Your task to perform on an android device: Search for pizza restaurants on Maps Image 0: 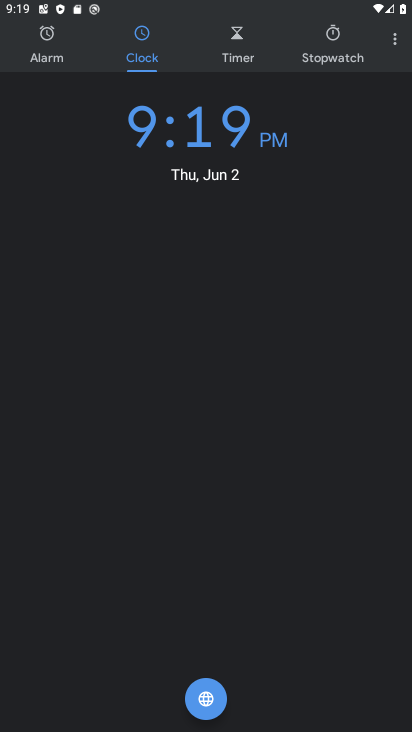
Step 0: press home button
Your task to perform on an android device: Search for pizza restaurants on Maps Image 1: 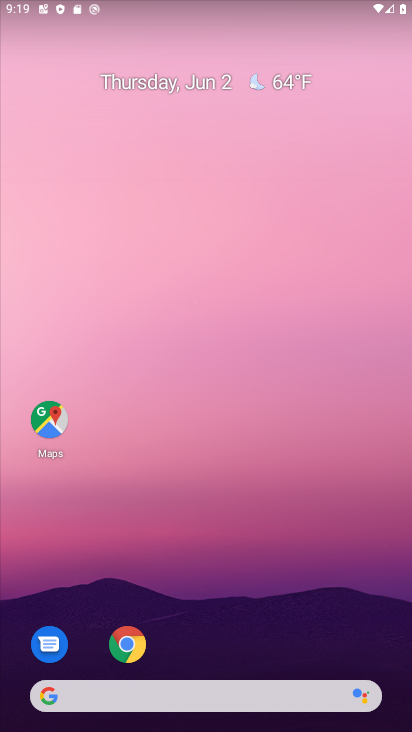
Step 1: click (39, 412)
Your task to perform on an android device: Search for pizza restaurants on Maps Image 2: 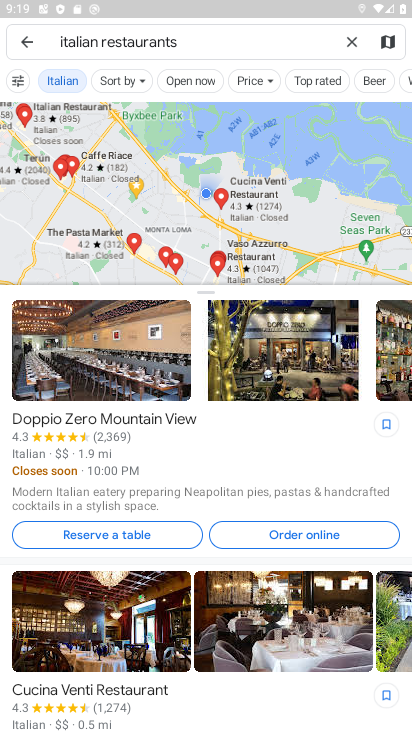
Step 2: click (349, 41)
Your task to perform on an android device: Search for pizza restaurants on Maps Image 3: 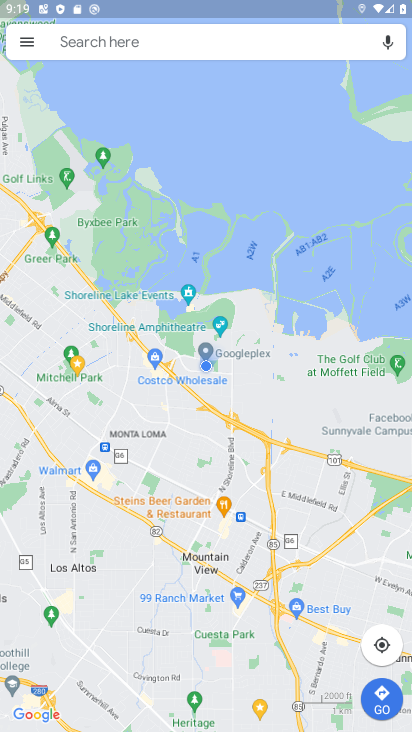
Step 3: click (248, 41)
Your task to perform on an android device: Search for pizza restaurants on Maps Image 4: 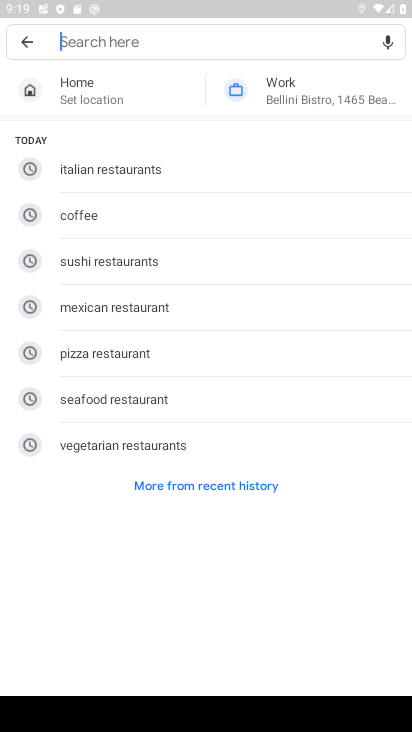
Step 4: type " pizza restaurants"
Your task to perform on an android device: Search for pizza restaurants on Maps Image 5: 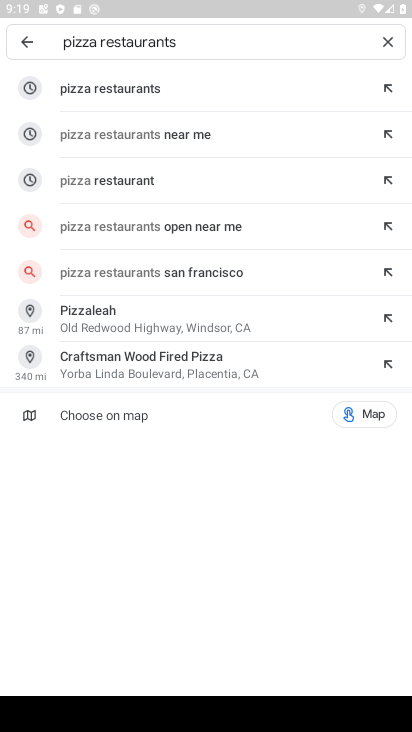
Step 5: click (224, 92)
Your task to perform on an android device: Search for pizza restaurants on Maps Image 6: 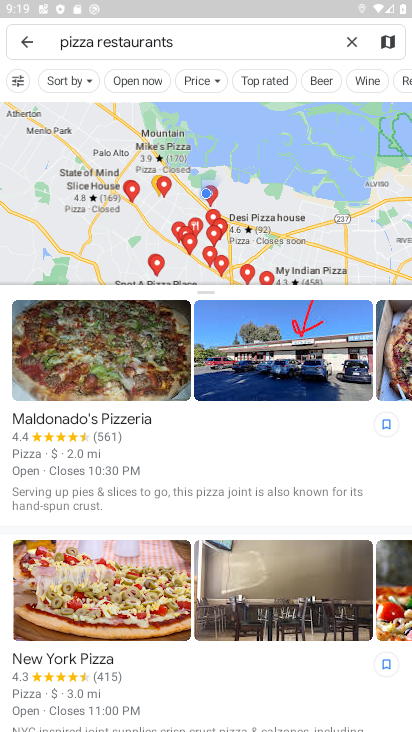
Step 6: task complete